Your task to perform on an android device: See recent photos Image 0: 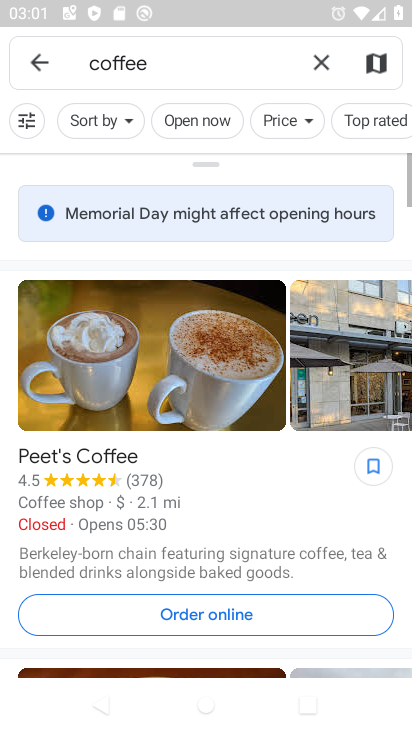
Step 0: press home button
Your task to perform on an android device: See recent photos Image 1: 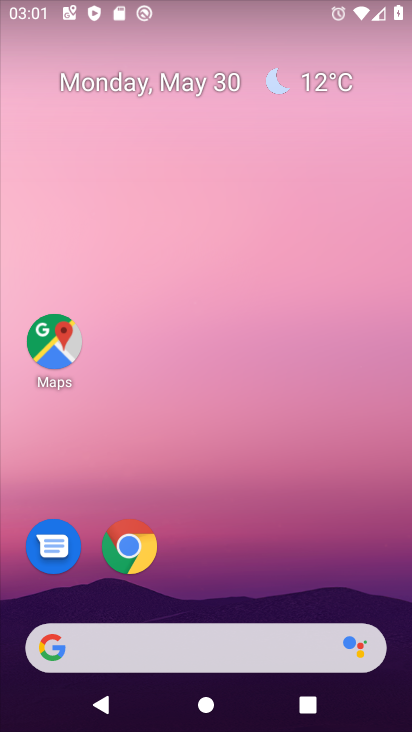
Step 1: drag from (236, 486) to (311, 85)
Your task to perform on an android device: See recent photos Image 2: 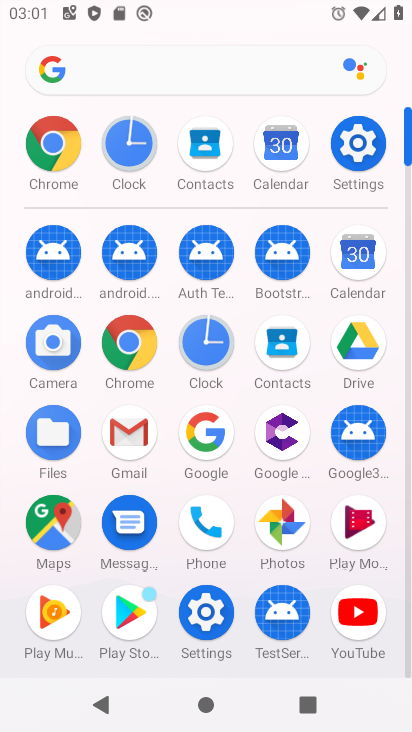
Step 2: click (280, 513)
Your task to perform on an android device: See recent photos Image 3: 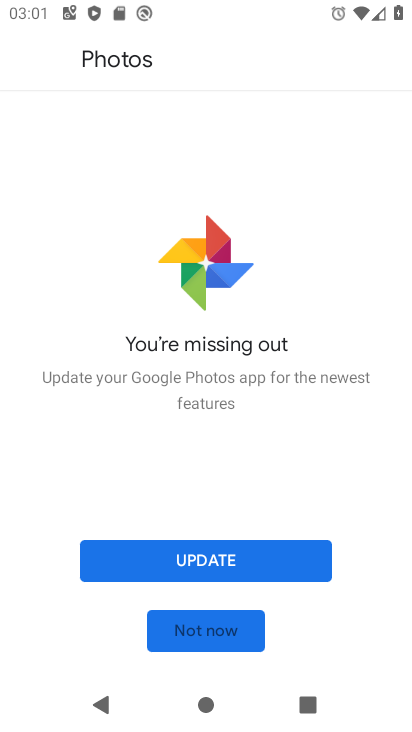
Step 3: click (203, 556)
Your task to perform on an android device: See recent photos Image 4: 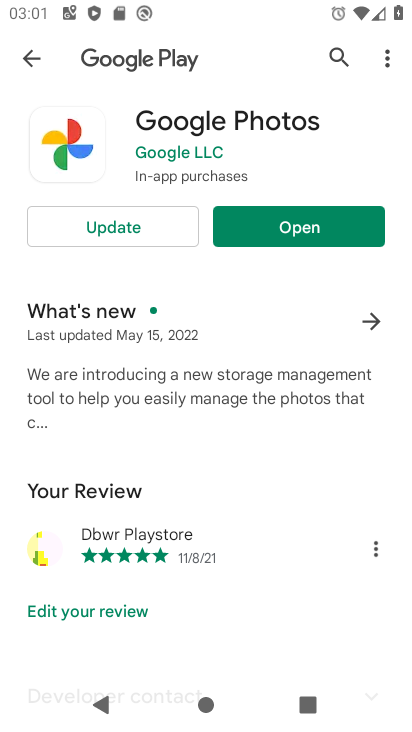
Step 4: click (112, 229)
Your task to perform on an android device: See recent photos Image 5: 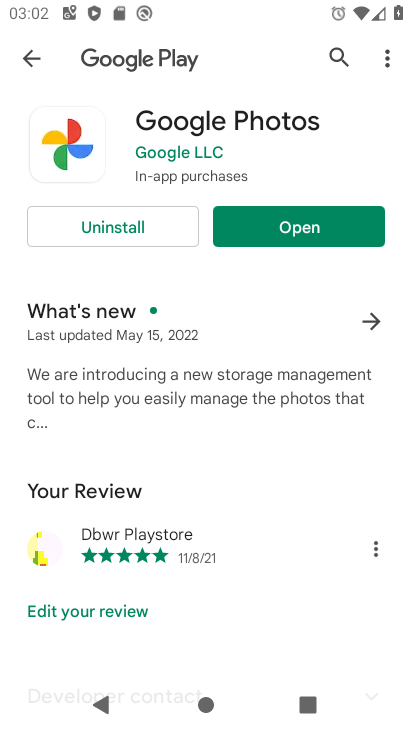
Step 5: click (320, 232)
Your task to perform on an android device: See recent photos Image 6: 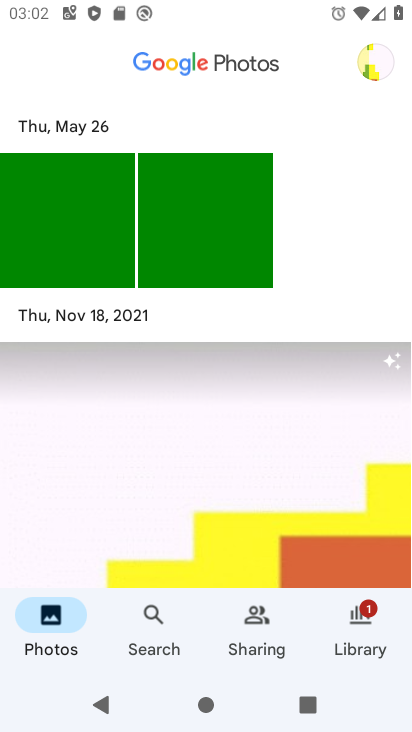
Step 6: task complete